Your task to perform on an android device: change notifications settings Image 0: 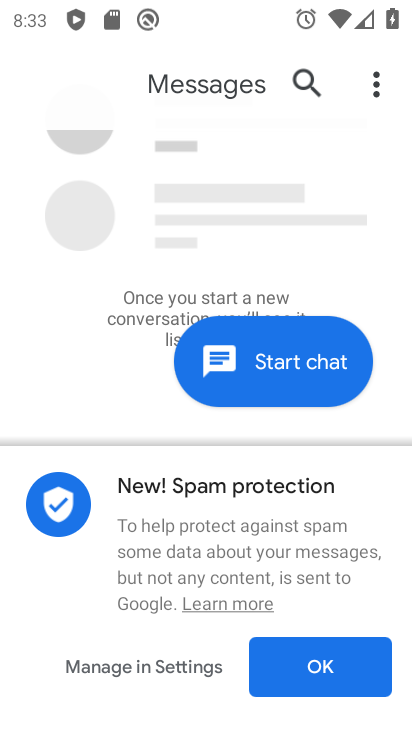
Step 0: press home button
Your task to perform on an android device: change notifications settings Image 1: 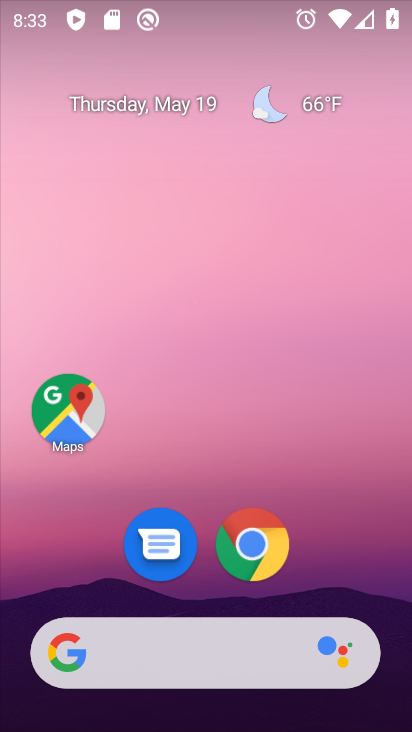
Step 1: drag from (400, 630) to (328, 110)
Your task to perform on an android device: change notifications settings Image 2: 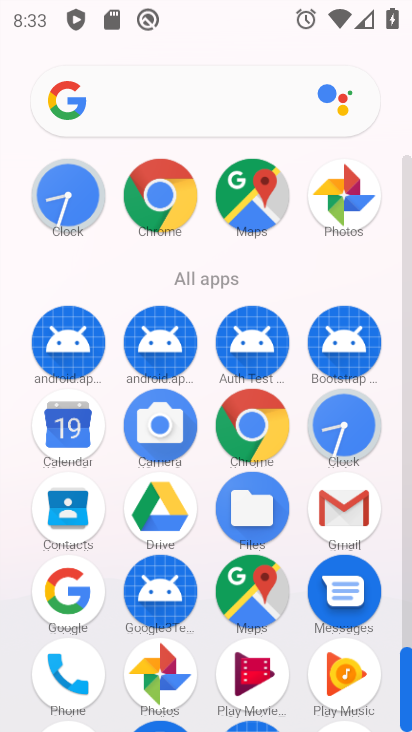
Step 2: drag from (116, 680) to (116, 323)
Your task to perform on an android device: change notifications settings Image 3: 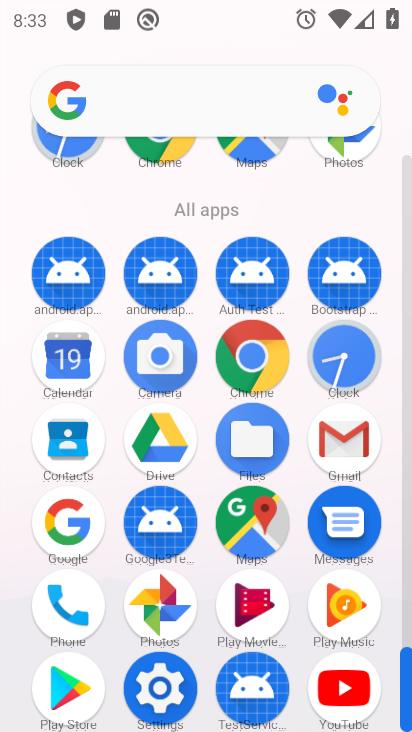
Step 3: click (159, 690)
Your task to perform on an android device: change notifications settings Image 4: 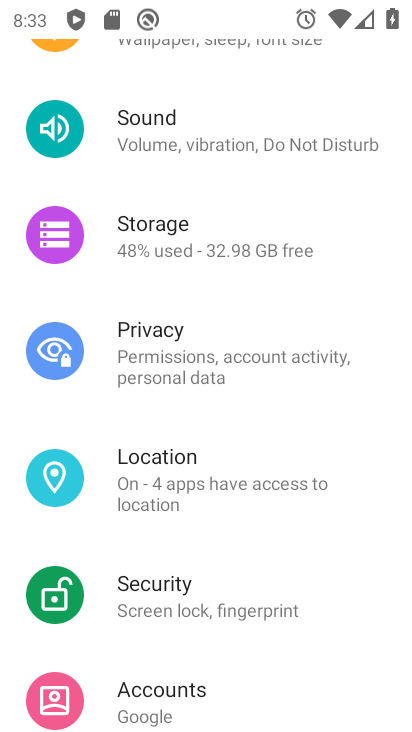
Step 4: drag from (223, 218) to (216, 523)
Your task to perform on an android device: change notifications settings Image 5: 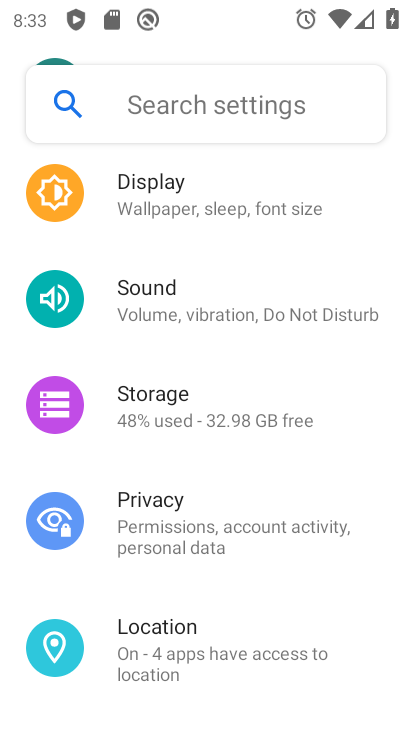
Step 5: drag from (217, 346) to (222, 540)
Your task to perform on an android device: change notifications settings Image 6: 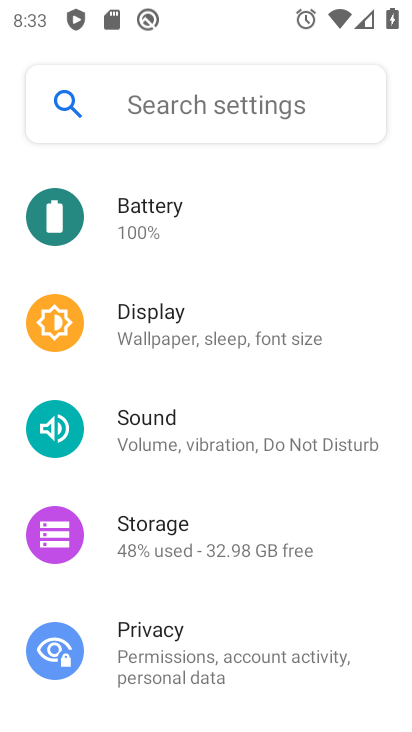
Step 6: drag from (187, 291) to (215, 574)
Your task to perform on an android device: change notifications settings Image 7: 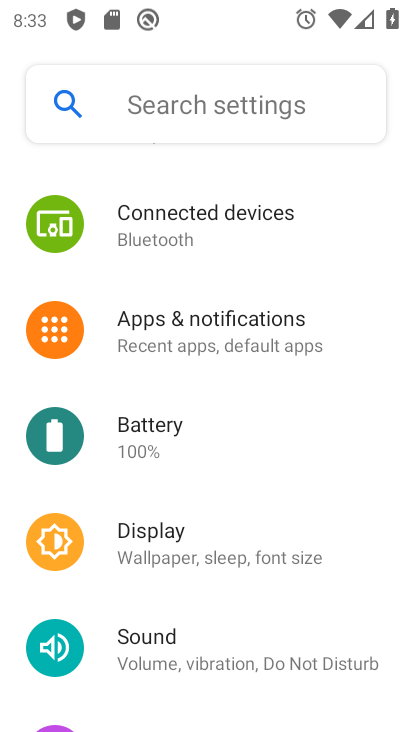
Step 7: click (218, 345)
Your task to perform on an android device: change notifications settings Image 8: 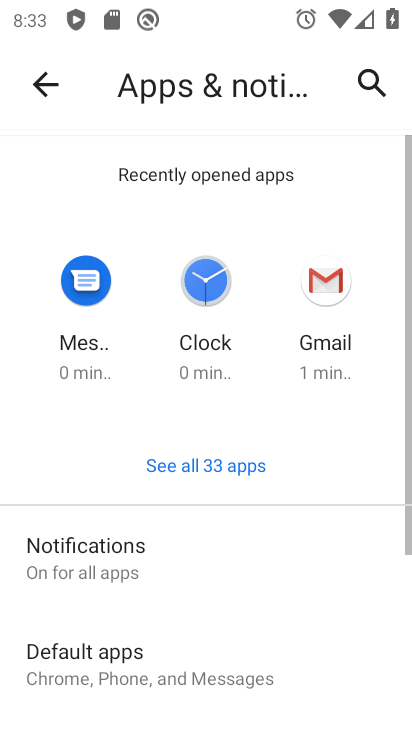
Step 8: click (141, 544)
Your task to perform on an android device: change notifications settings Image 9: 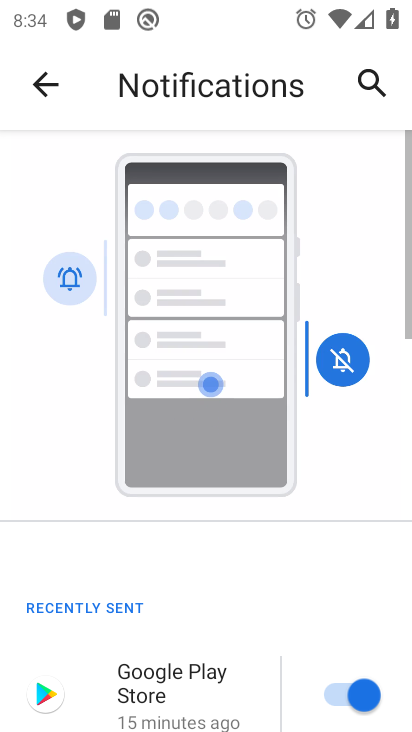
Step 9: task complete